Your task to perform on an android device: Open location settings Image 0: 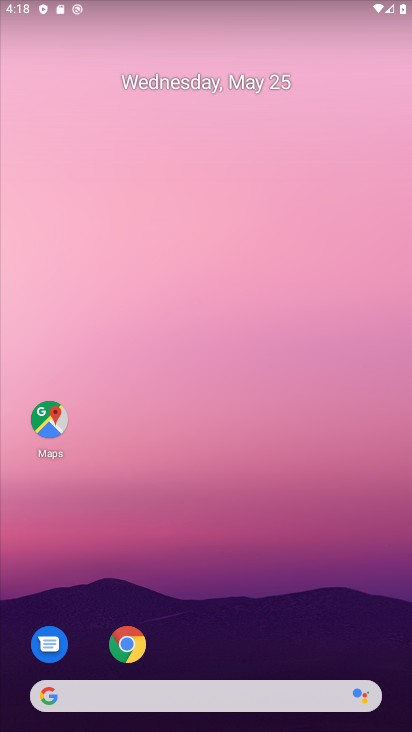
Step 0: drag from (219, 562) to (228, 2)
Your task to perform on an android device: Open location settings Image 1: 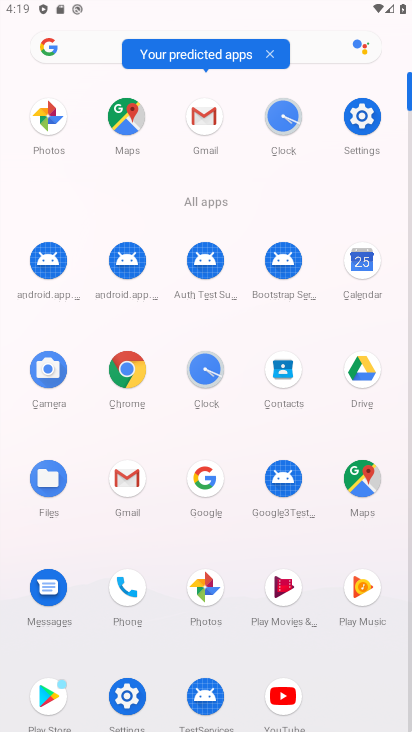
Step 1: click (350, 145)
Your task to perform on an android device: Open location settings Image 2: 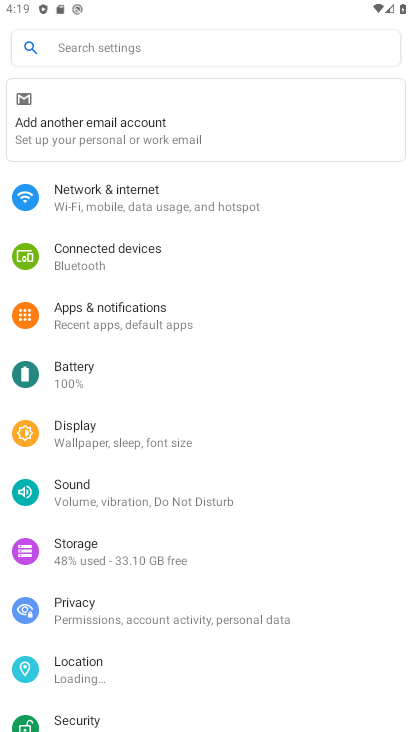
Step 2: drag from (152, 642) to (129, 334)
Your task to perform on an android device: Open location settings Image 3: 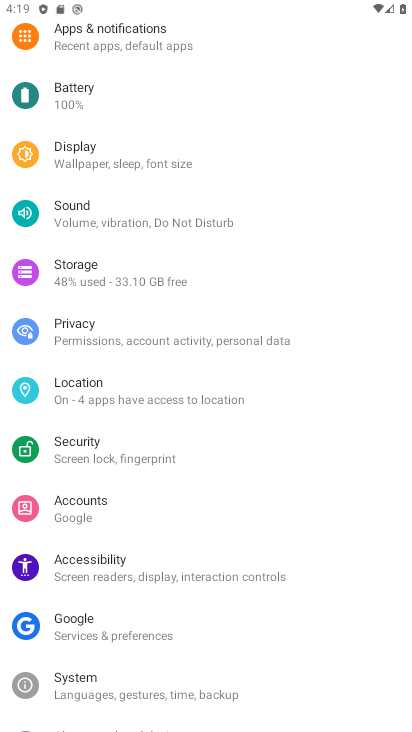
Step 3: click (72, 400)
Your task to perform on an android device: Open location settings Image 4: 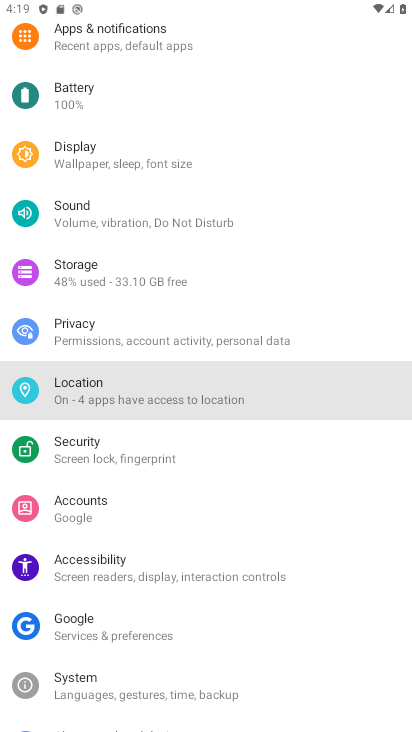
Step 4: click (104, 388)
Your task to perform on an android device: Open location settings Image 5: 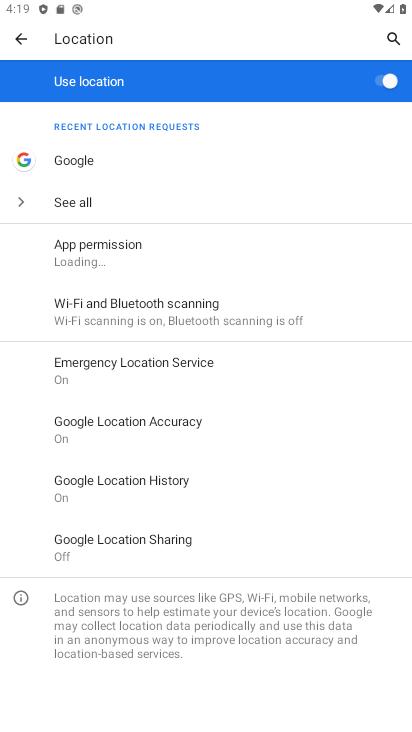
Step 5: task complete